Your task to perform on an android device: Open maps Image 0: 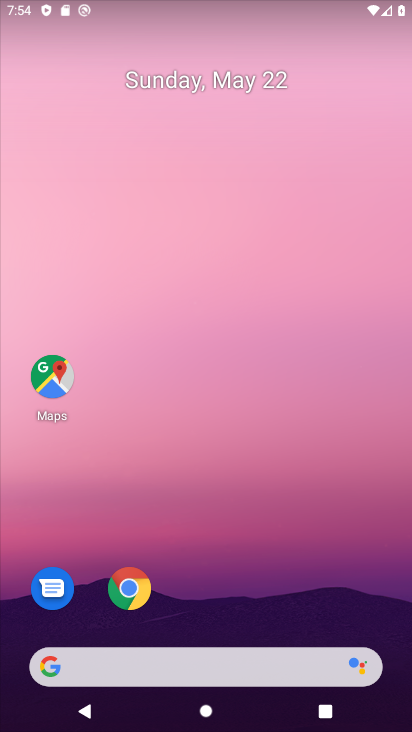
Step 0: click (46, 375)
Your task to perform on an android device: Open maps Image 1: 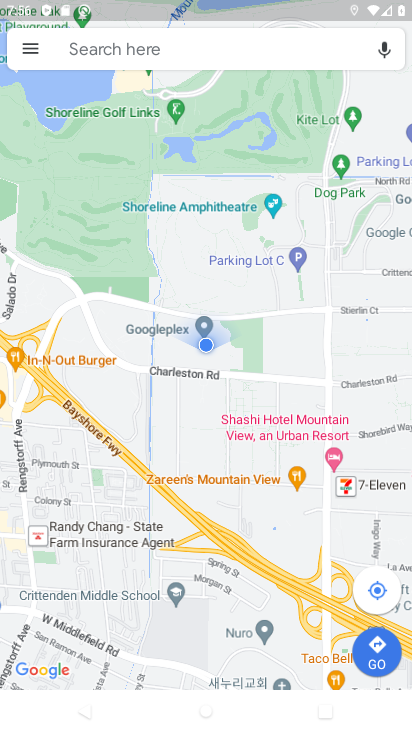
Step 1: task complete